Your task to perform on an android device: change the clock display to digital Image 0: 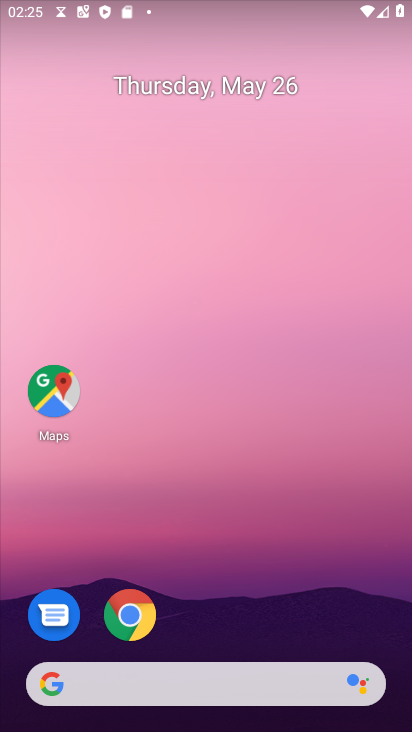
Step 0: press home button
Your task to perform on an android device: change the clock display to digital Image 1: 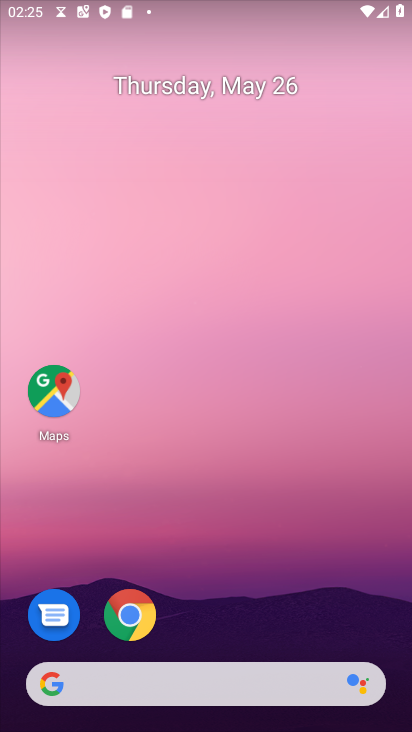
Step 1: drag from (212, 643) to (190, 0)
Your task to perform on an android device: change the clock display to digital Image 2: 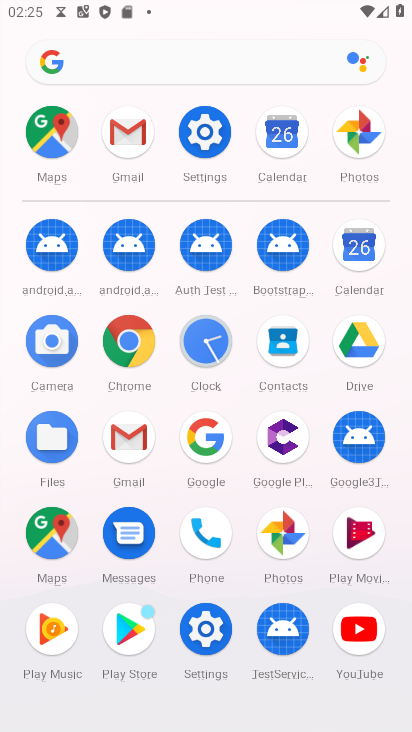
Step 2: click (208, 338)
Your task to perform on an android device: change the clock display to digital Image 3: 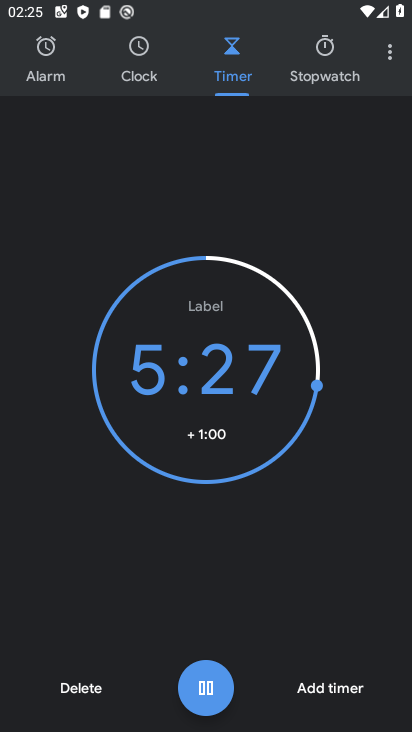
Step 3: click (68, 688)
Your task to perform on an android device: change the clock display to digital Image 4: 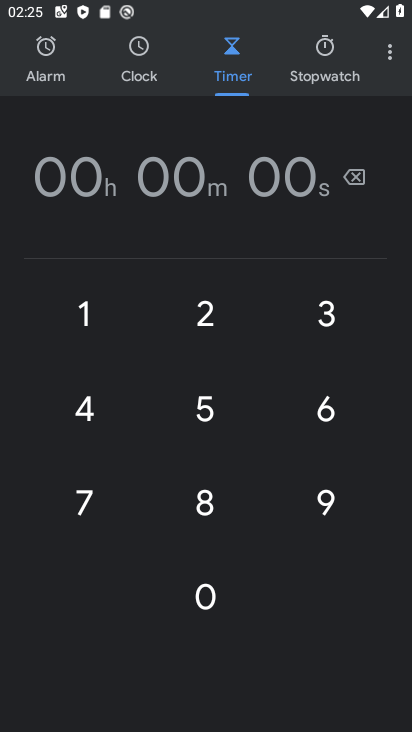
Step 4: click (385, 48)
Your task to perform on an android device: change the clock display to digital Image 5: 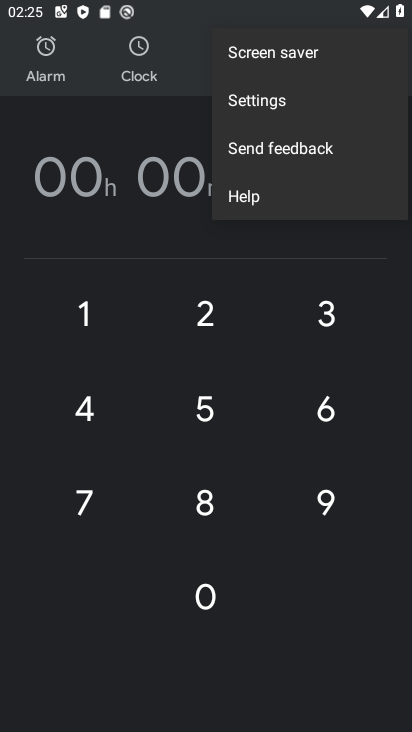
Step 5: click (292, 97)
Your task to perform on an android device: change the clock display to digital Image 6: 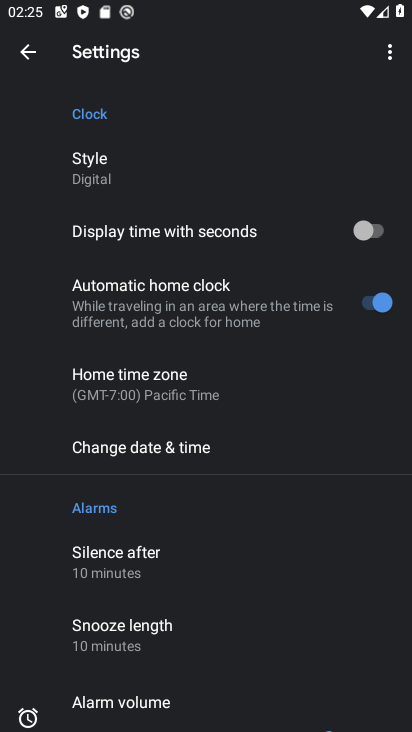
Step 6: click (129, 168)
Your task to perform on an android device: change the clock display to digital Image 7: 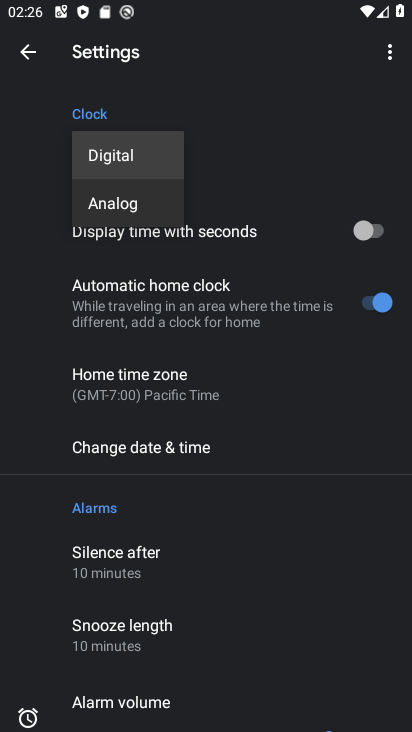
Step 7: click (144, 146)
Your task to perform on an android device: change the clock display to digital Image 8: 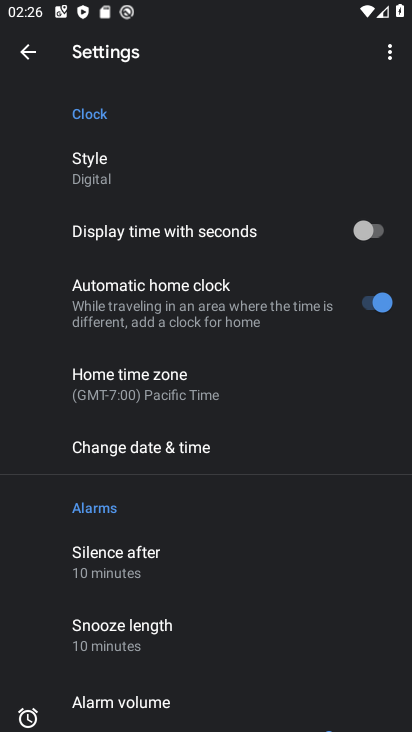
Step 8: task complete